Your task to perform on an android device: Go to privacy settings Image 0: 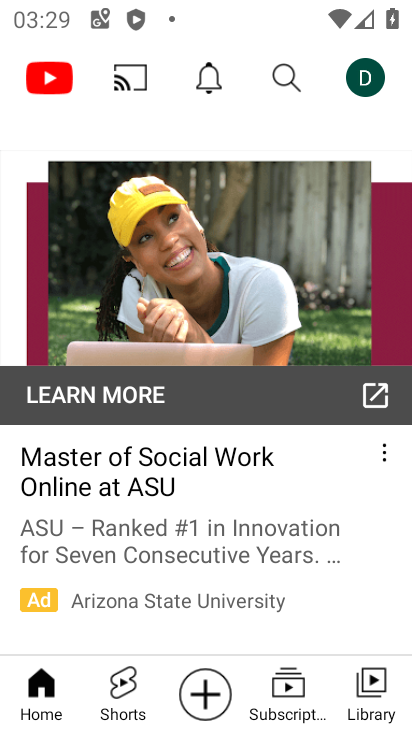
Step 0: press home button
Your task to perform on an android device: Go to privacy settings Image 1: 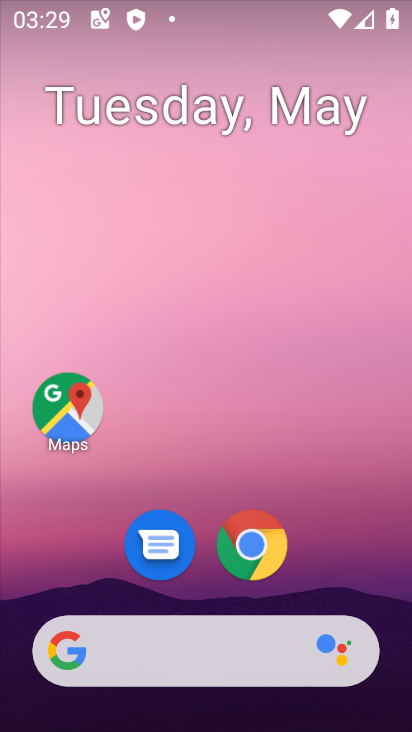
Step 1: drag from (389, 620) to (308, 121)
Your task to perform on an android device: Go to privacy settings Image 2: 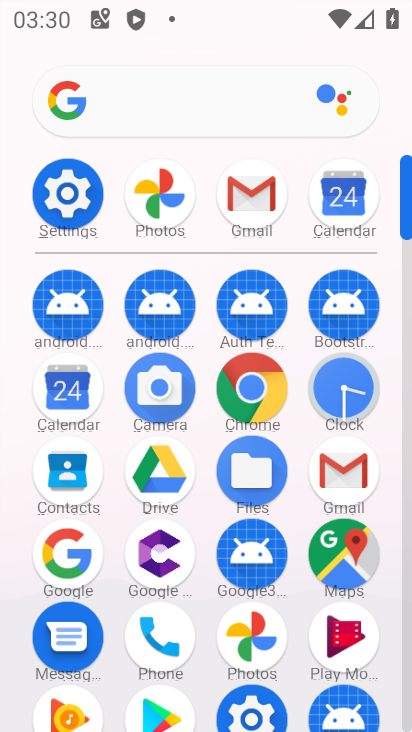
Step 2: click (407, 695)
Your task to perform on an android device: Go to privacy settings Image 3: 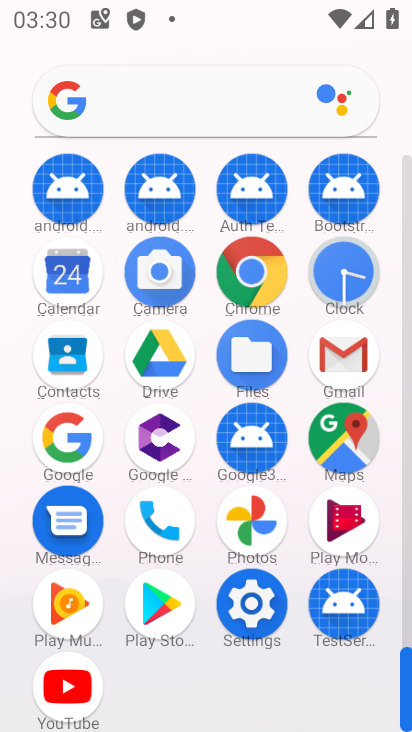
Step 3: click (251, 601)
Your task to perform on an android device: Go to privacy settings Image 4: 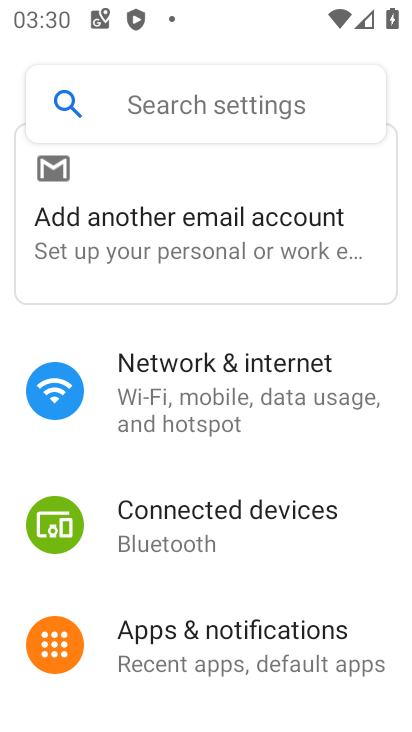
Step 4: drag from (380, 674) to (291, 237)
Your task to perform on an android device: Go to privacy settings Image 5: 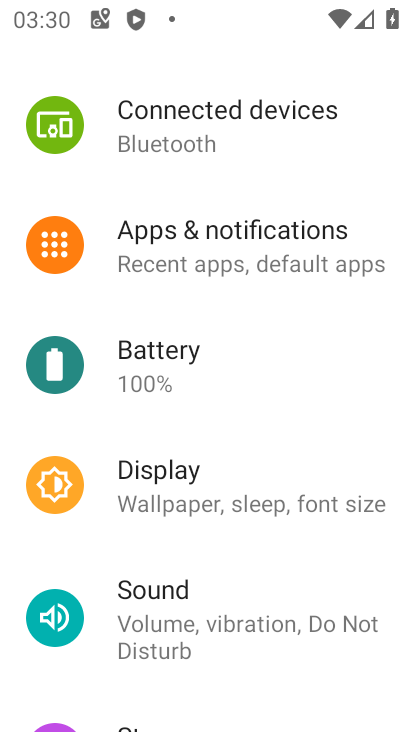
Step 5: drag from (383, 635) to (296, 226)
Your task to perform on an android device: Go to privacy settings Image 6: 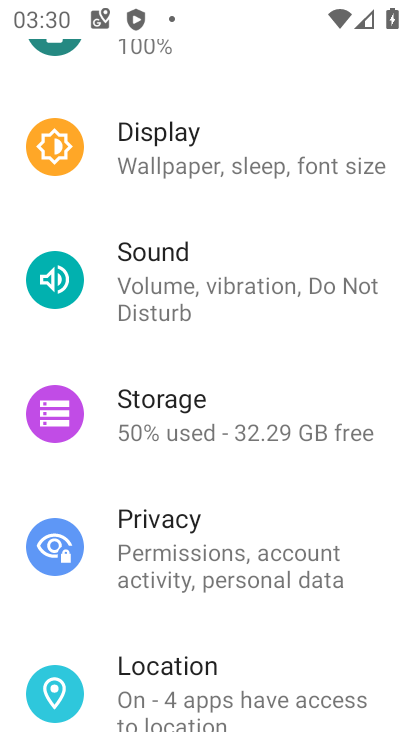
Step 6: click (160, 541)
Your task to perform on an android device: Go to privacy settings Image 7: 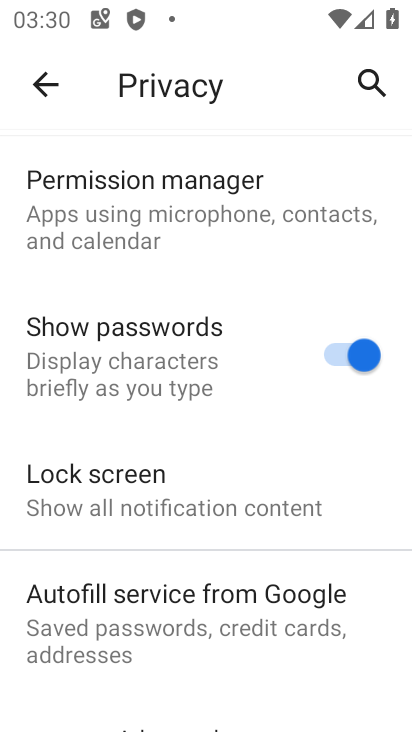
Step 7: drag from (253, 639) to (178, 237)
Your task to perform on an android device: Go to privacy settings Image 8: 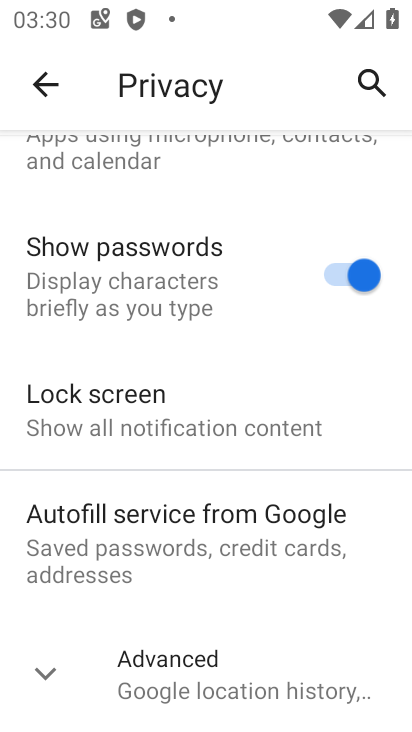
Step 8: click (44, 669)
Your task to perform on an android device: Go to privacy settings Image 9: 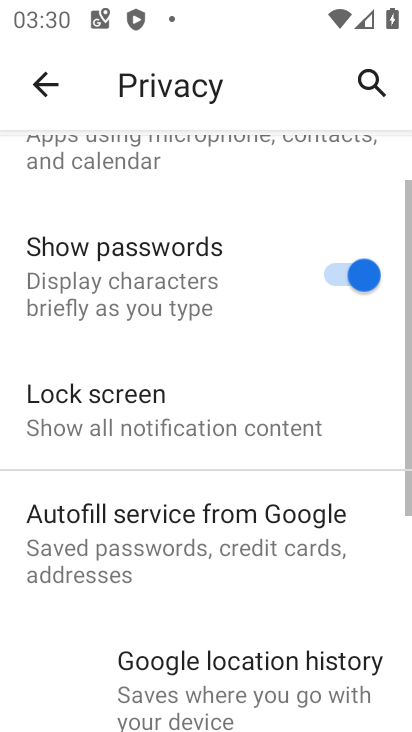
Step 9: task complete